Your task to perform on an android device: move a message to another label in the gmail app Image 0: 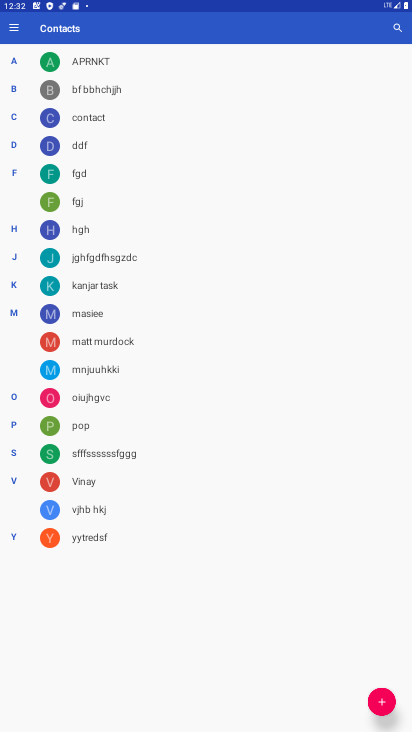
Step 0: press home button
Your task to perform on an android device: move a message to another label in the gmail app Image 1: 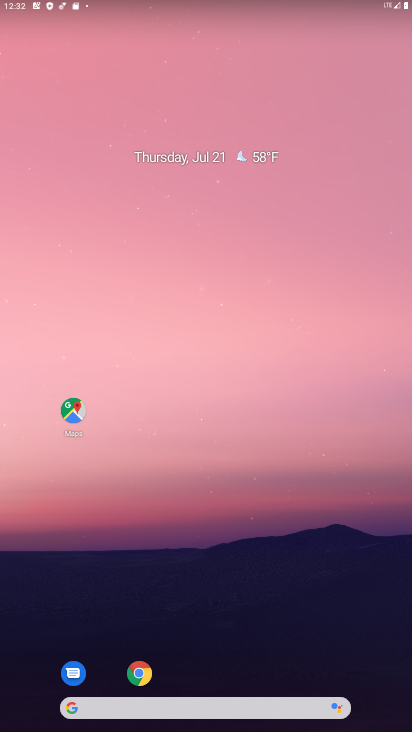
Step 1: drag from (217, 678) to (268, 251)
Your task to perform on an android device: move a message to another label in the gmail app Image 2: 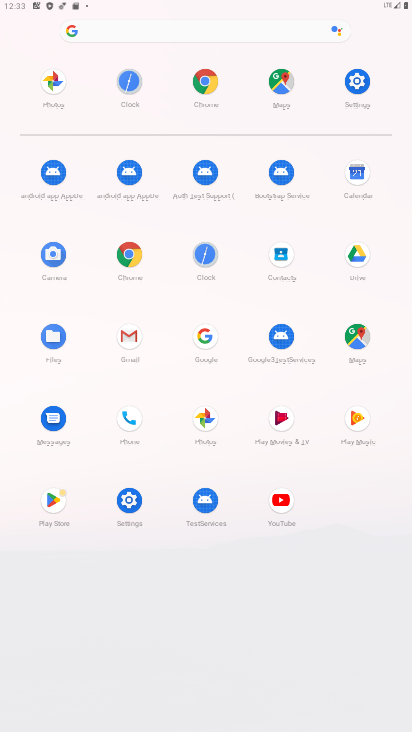
Step 2: click (130, 334)
Your task to perform on an android device: move a message to another label in the gmail app Image 3: 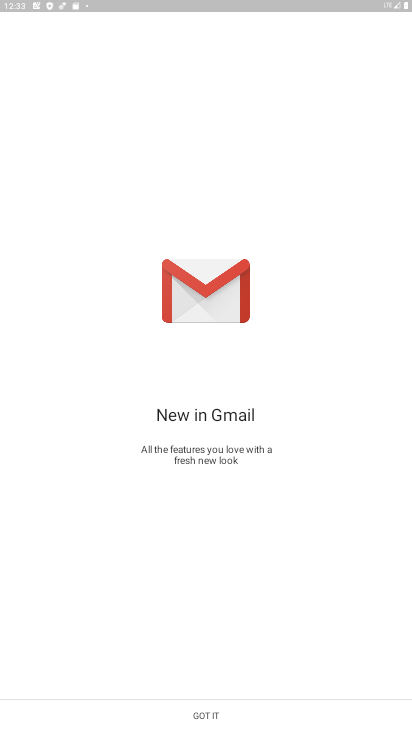
Step 3: click (229, 713)
Your task to perform on an android device: move a message to another label in the gmail app Image 4: 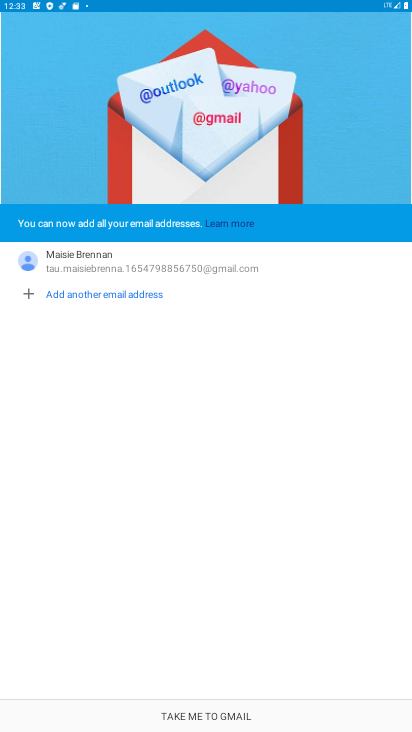
Step 4: click (229, 713)
Your task to perform on an android device: move a message to another label in the gmail app Image 5: 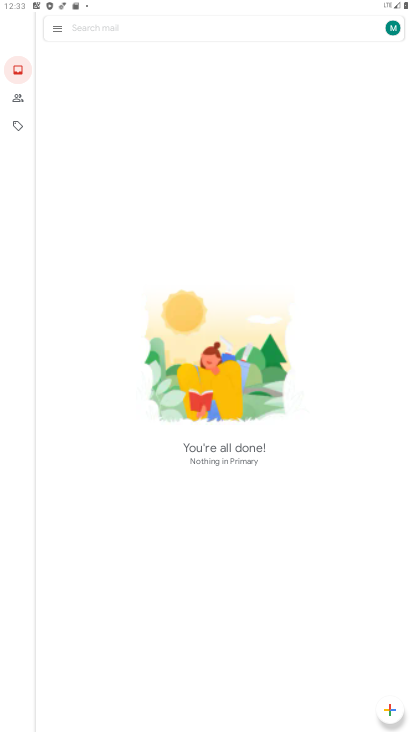
Step 5: click (62, 22)
Your task to perform on an android device: move a message to another label in the gmail app Image 6: 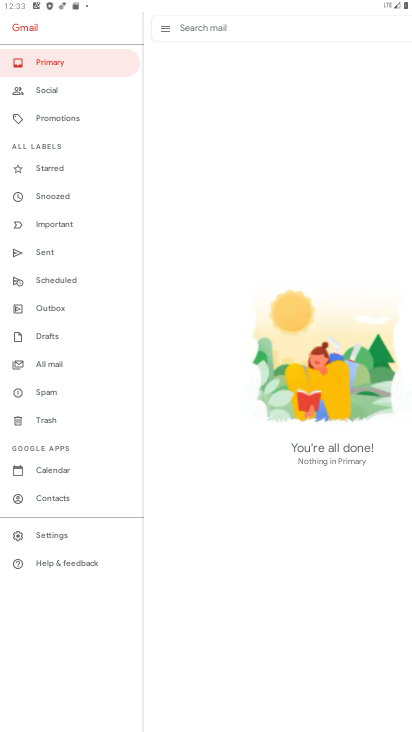
Step 6: click (56, 367)
Your task to perform on an android device: move a message to another label in the gmail app Image 7: 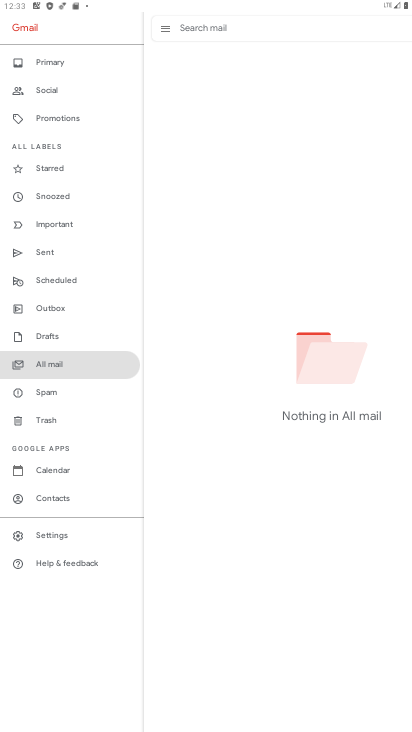
Step 7: task complete